Your task to perform on an android device: Go to wifi settings Image 0: 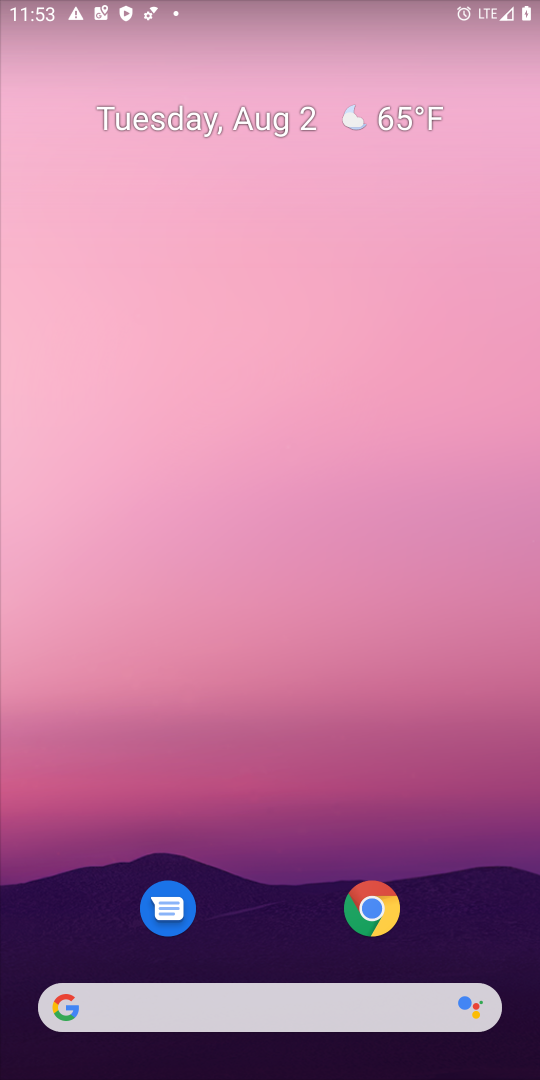
Step 0: drag from (341, 746) to (369, 30)
Your task to perform on an android device: Go to wifi settings Image 1: 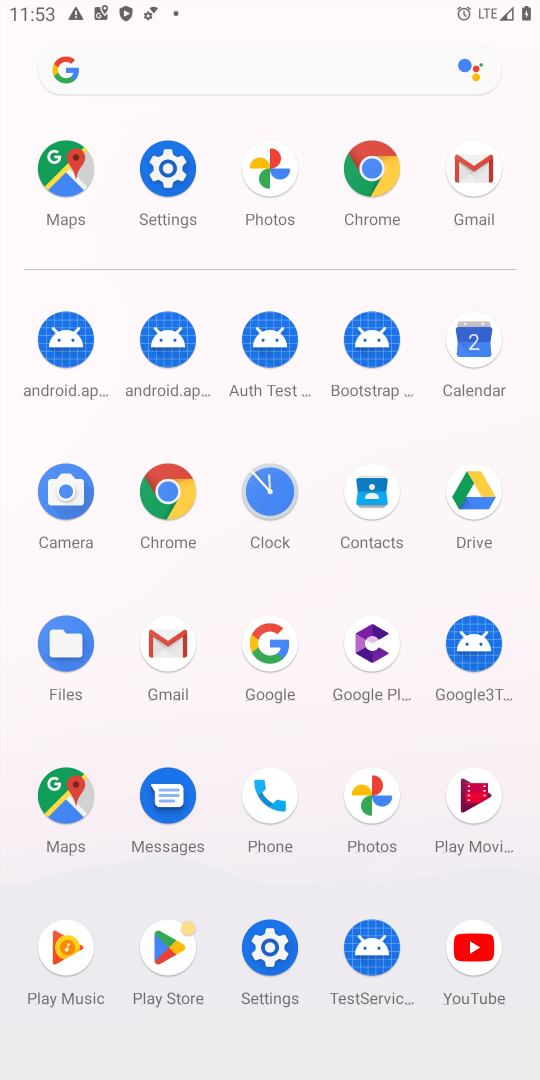
Step 1: click (282, 960)
Your task to perform on an android device: Go to wifi settings Image 2: 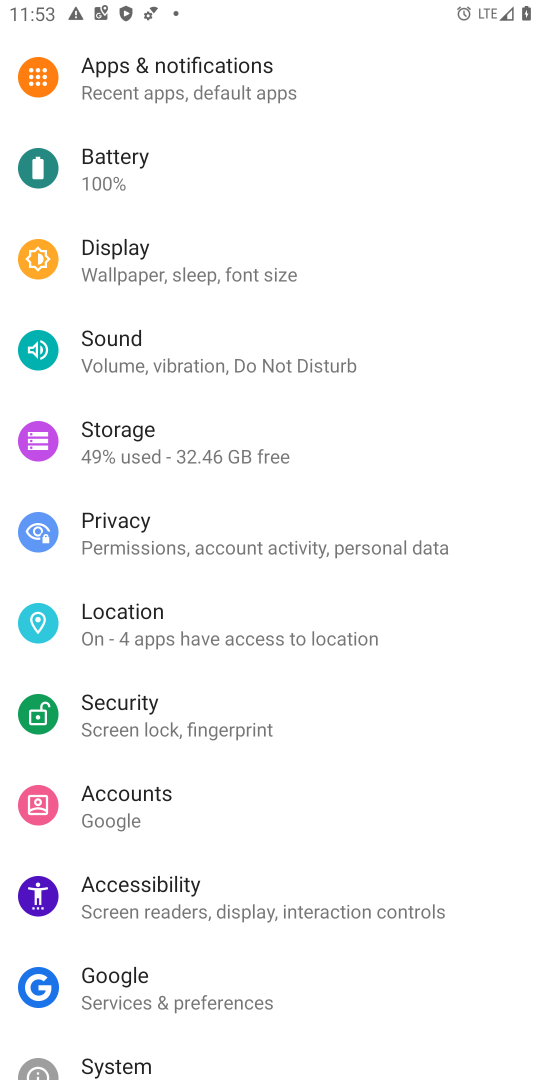
Step 2: drag from (347, 140) to (268, 949)
Your task to perform on an android device: Go to wifi settings Image 3: 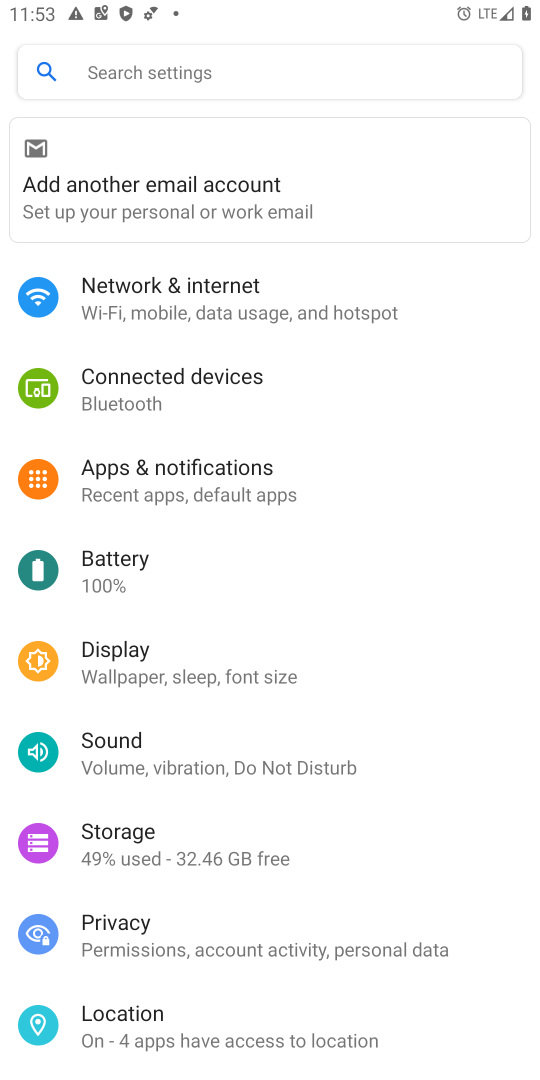
Step 3: drag from (289, 183) to (290, 1038)
Your task to perform on an android device: Go to wifi settings Image 4: 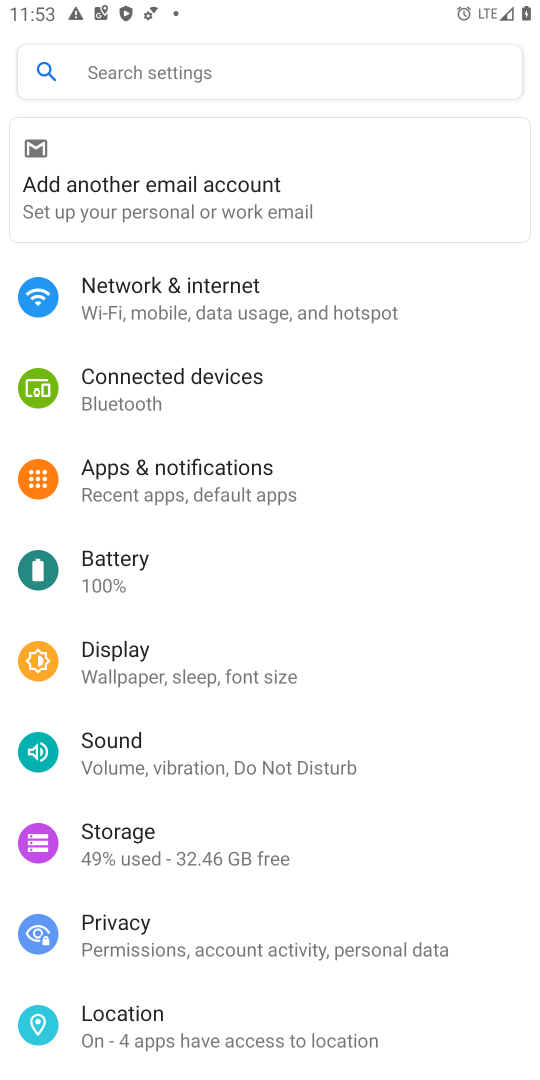
Step 4: drag from (355, 225) to (329, 946)
Your task to perform on an android device: Go to wifi settings Image 5: 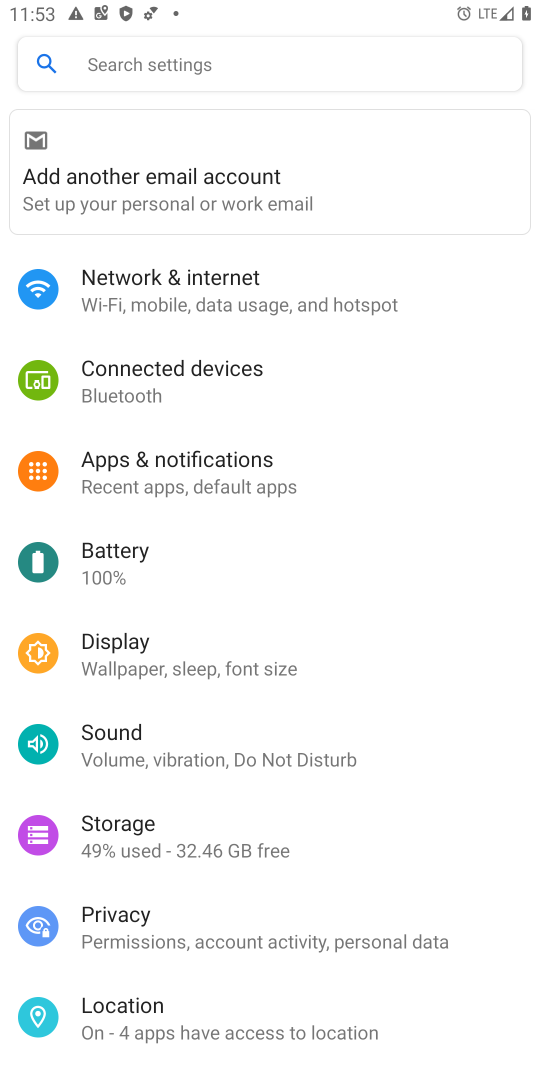
Step 5: click (243, 309)
Your task to perform on an android device: Go to wifi settings Image 6: 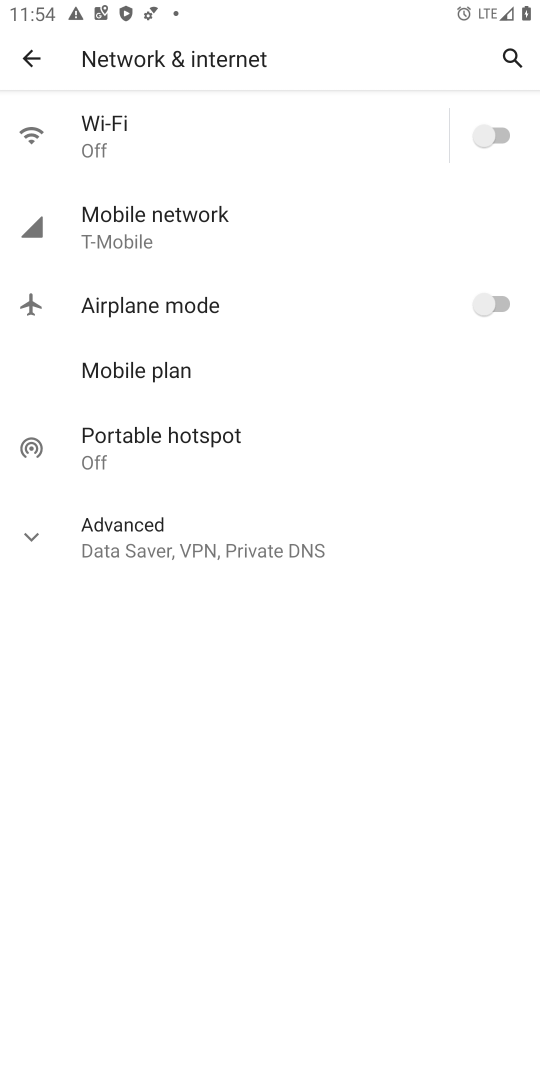
Step 6: click (203, 147)
Your task to perform on an android device: Go to wifi settings Image 7: 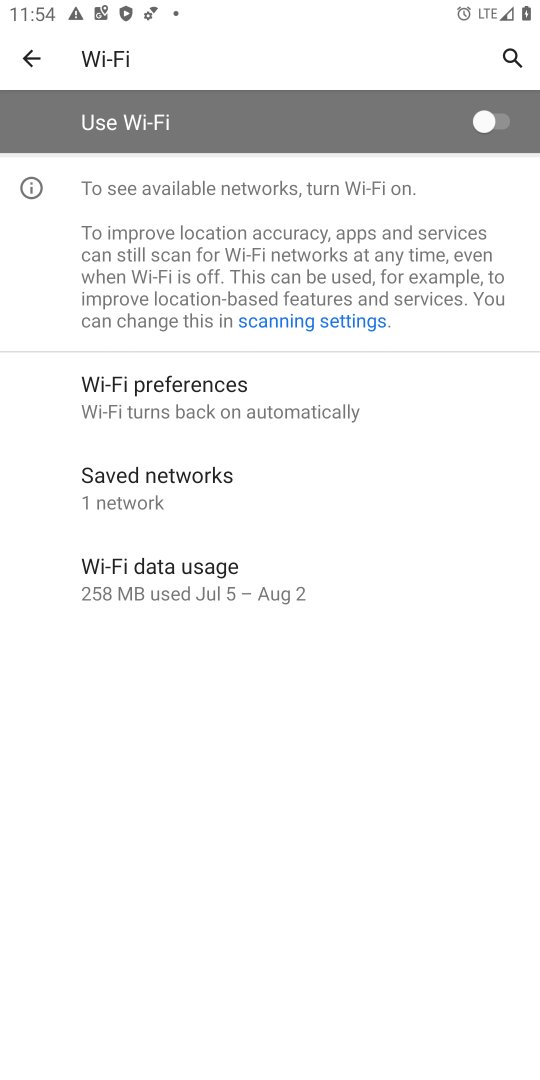
Step 7: task complete